Your task to perform on an android device: Open Android settings Image 0: 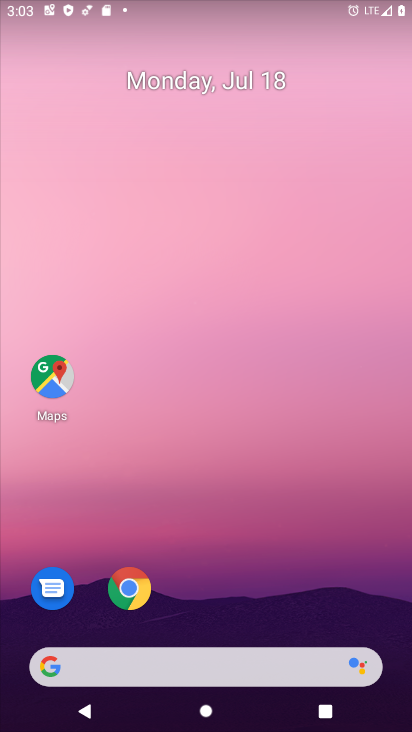
Step 0: drag from (163, 548) to (220, 39)
Your task to perform on an android device: Open Android settings Image 1: 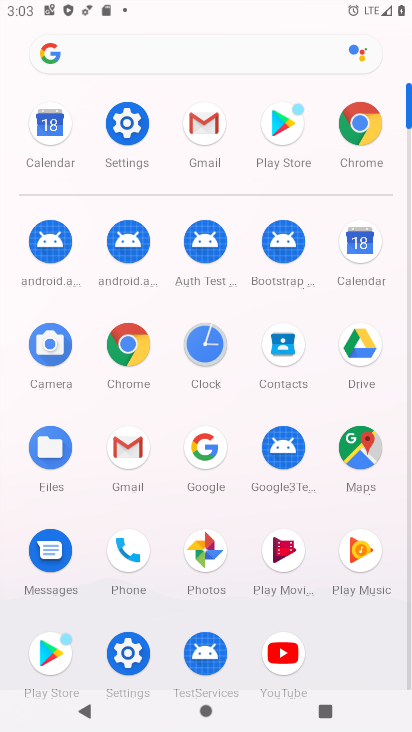
Step 1: click (126, 126)
Your task to perform on an android device: Open Android settings Image 2: 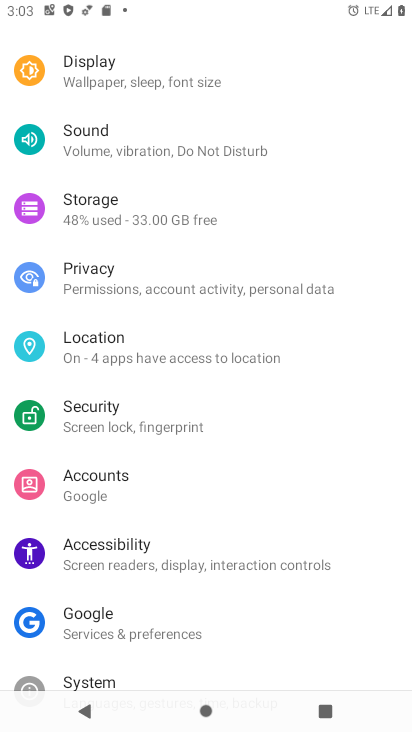
Step 2: drag from (209, 411) to (262, 6)
Your task to perform on an android device: Open Android settings Image 3: 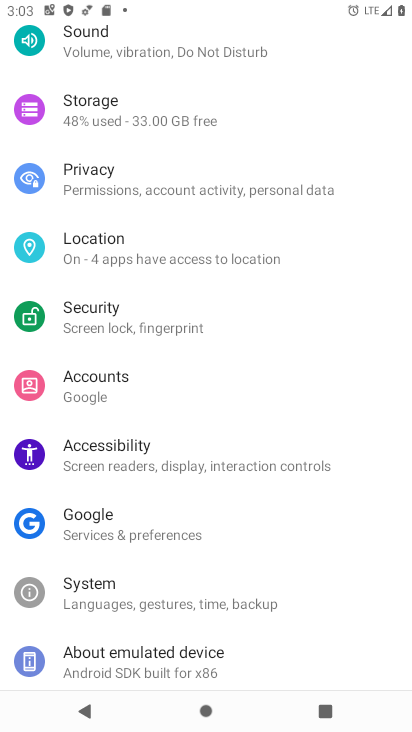
Step 3: click (148, 677)
Your task to perform on an android device: Open Android settings Image 4: 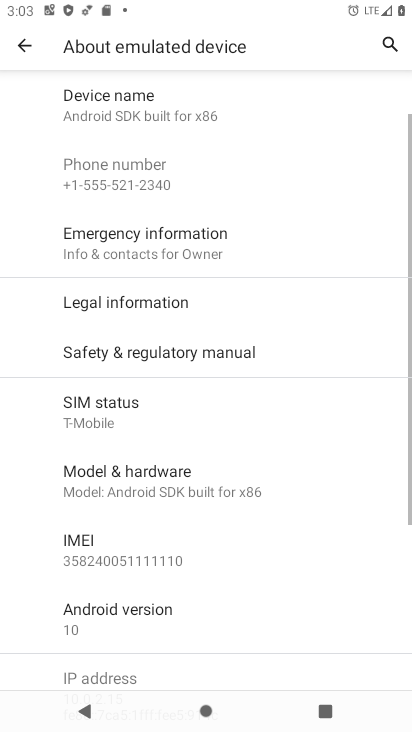
Step 4: click (121, 616)
Your task to perform on an android device: Open Android settings Image 5: 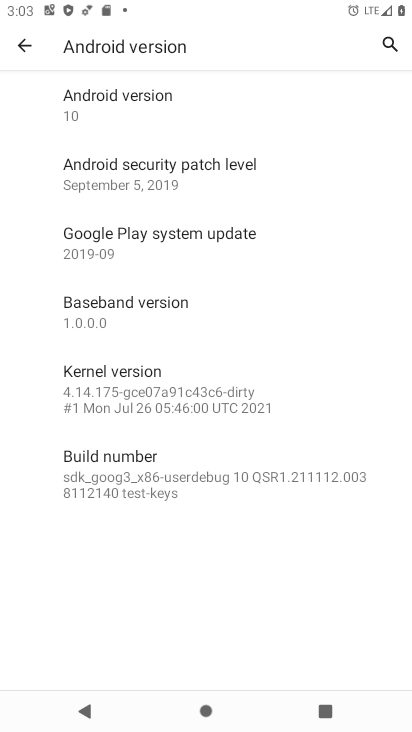
Step 5: task complete